Your task to perform on an android device: Open display settings Image 0: 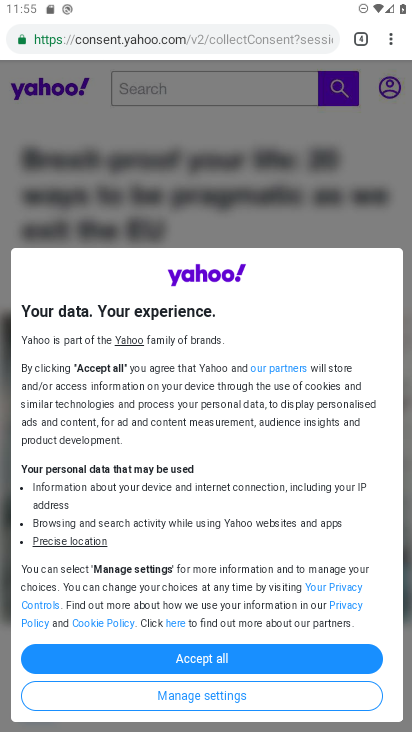
Step 0: press home button
Your task to perform on an android device: Open display settings Image 1: 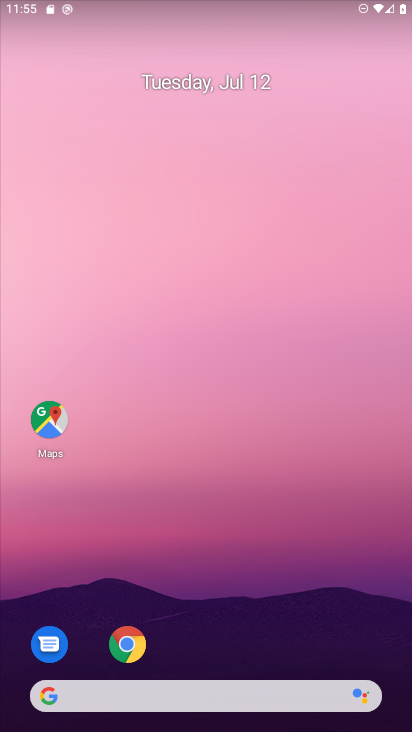
Step 1: drag from (211, 674) to (256, 0)
Your task to perform on an android device: Open display settings Image 2: 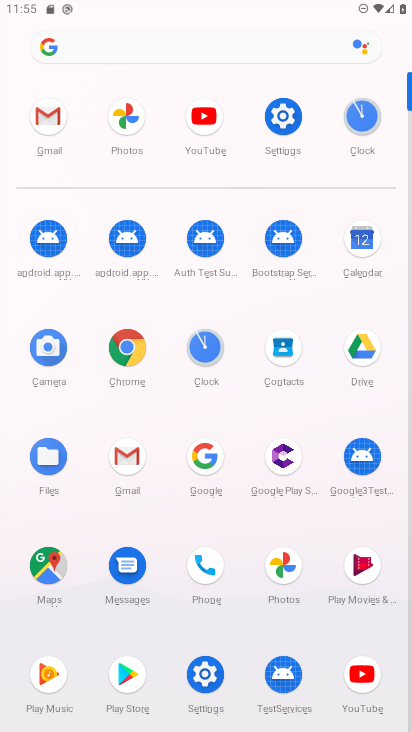
Step 2: click (283, 128)
Your task to perform on an android device: Open display settings Image 3: 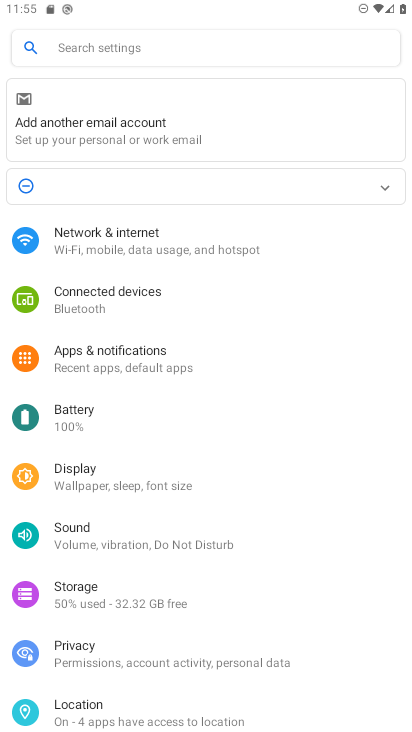
Step 3: click (167, 479)
Your task to perform on an android device: Open display settings Image 4: 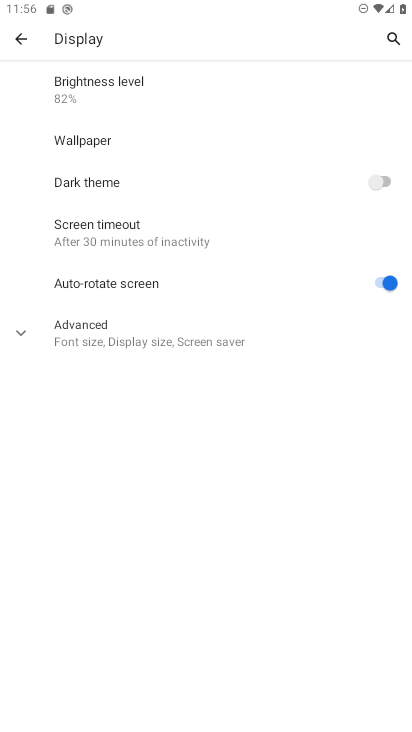
Step 4: task complete